Your task to perform on an android device: toggle priority inbox in the gmail app Image 0: 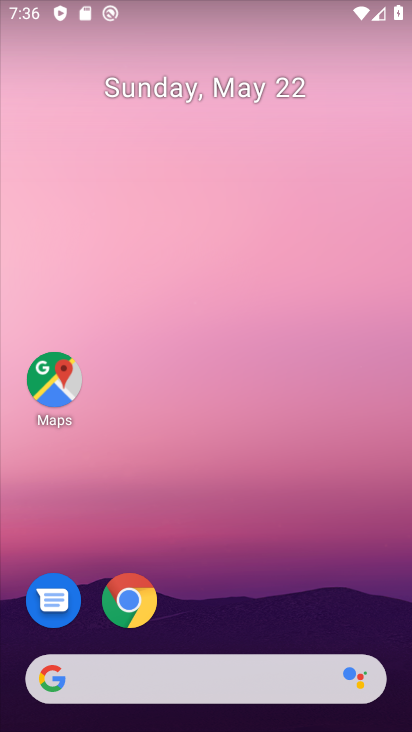
Step 0: drag from (206, 599) to (261, 317)
Your task to perform on an android device: toggle priority inbox in the gmail app Image 1: 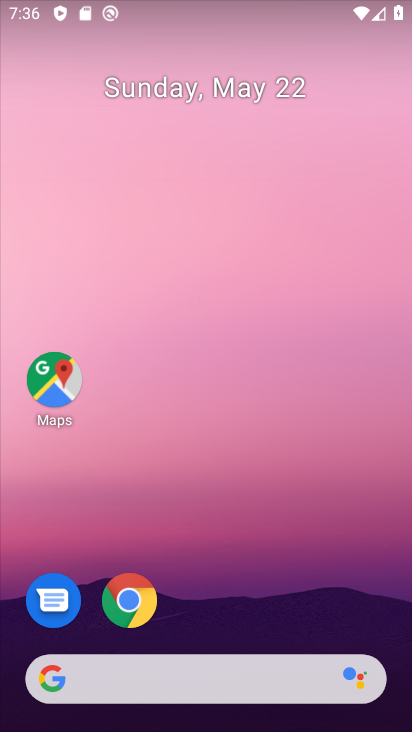
Step 1: drag from (216, 535) to (269, 237)
Your task to perform on an android device: toggle priority inbox in the gmail app Image 2: 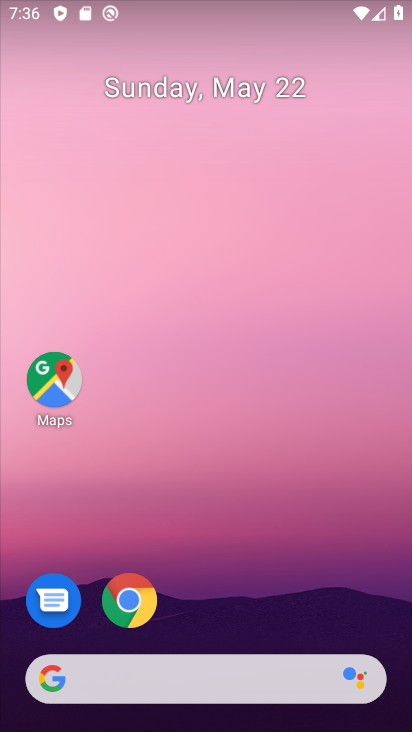
Step 2: drag from (205, 606) to (268, 192)
Your task to perform on an android device: toggle priority inbox in the gmail app Image 3: 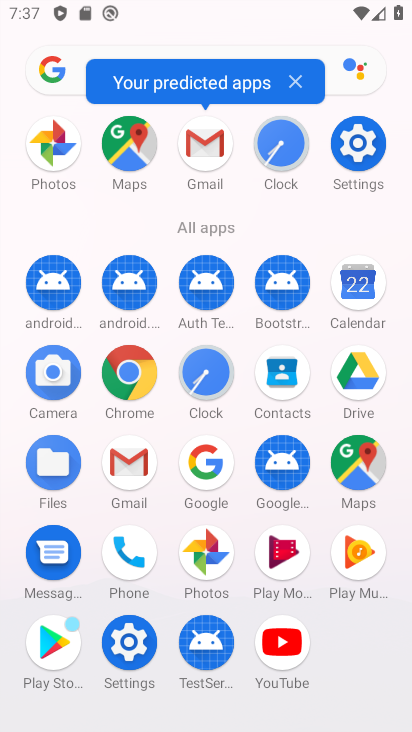
Step 3: click (216, 164)
Your task to perform on an android device: toggle priority inbox in the gmail app Image 4: 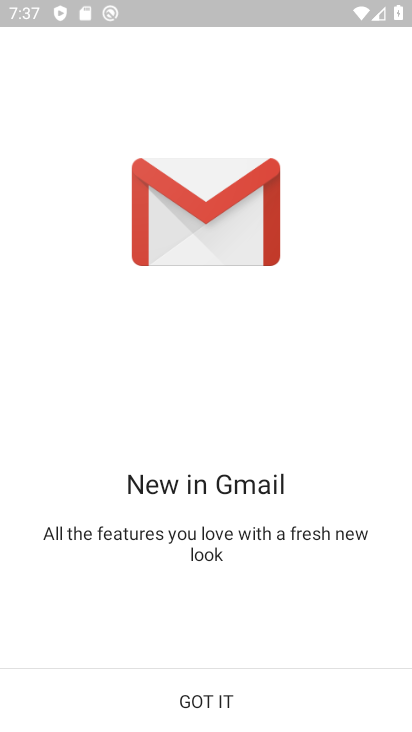
Step 4: click (201, 698)
Your task to perform on an android device: toggle priority inbox in the gmail app Image 5: 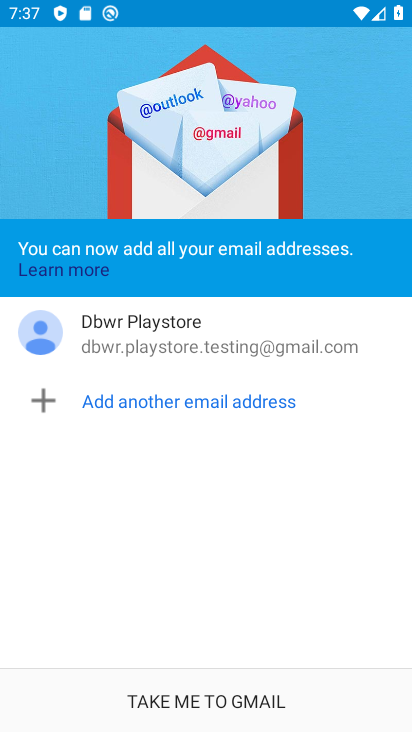
Step 5: click (220, 713)
Your task to perform on an android device: toggle priority inbox in the gmail app Image 6: 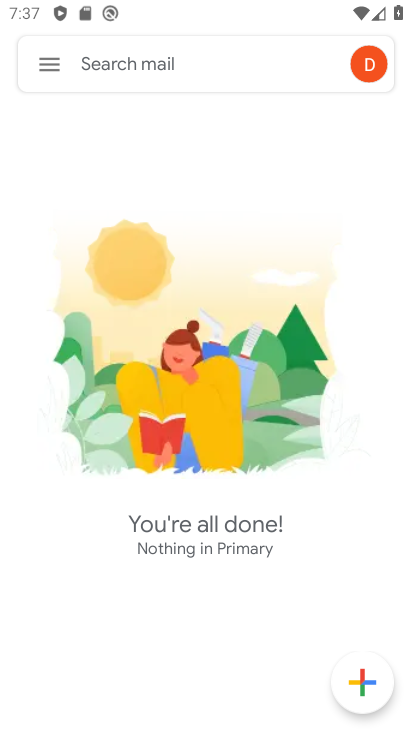
Step 6: click (42, 62)
Your task to perform on an android device: toggle priority inbox in the gmail app Image 7: 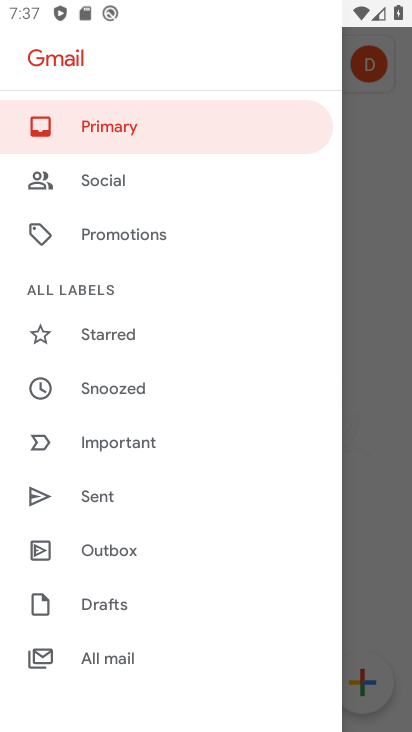
Step 7: drag from (178, 631) to (240, 188)
Your task to perform on an android device: toggle priority inbox in the gmail app Image 8: 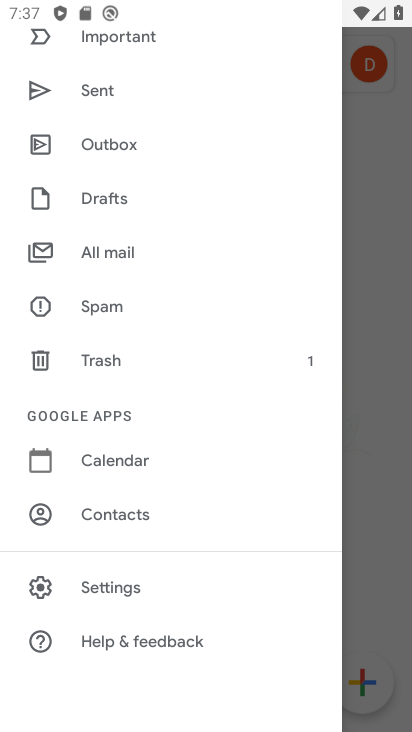
Step 8: click (115, 580)
Your task to perform on an android device: toggle priority inbox in the gmail app Image 9: 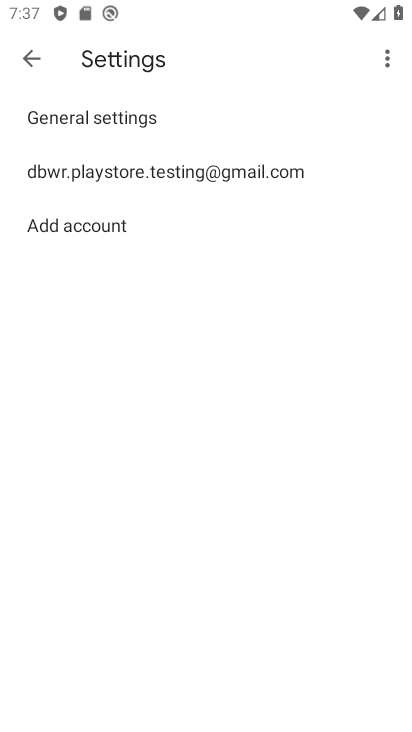
Step 9: click (204, 172)
Your task to perform on an android device: toggle priority inbox in the gmail app Image 10: 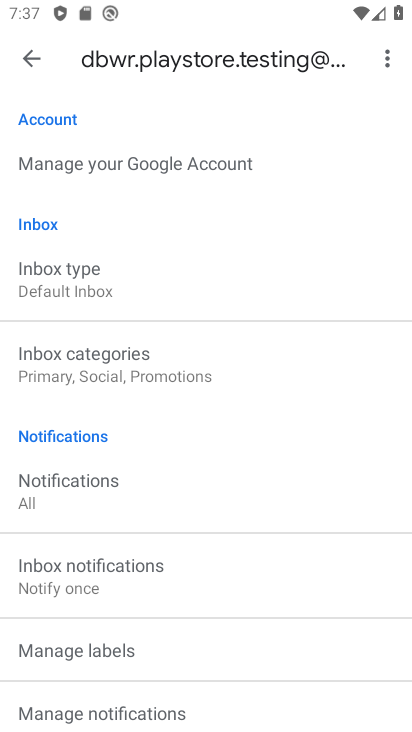
Step 10: click (89, 281)
Your task to perform on an android device: toggle priority inbox in the gmail app Image 11: 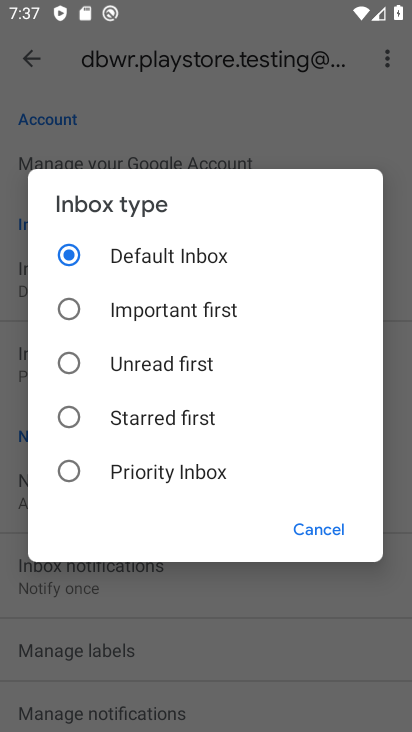
Step 11: click (120, 477)
Your task to perform on an android device: toggle priority inbox in the gmail app Image 12: 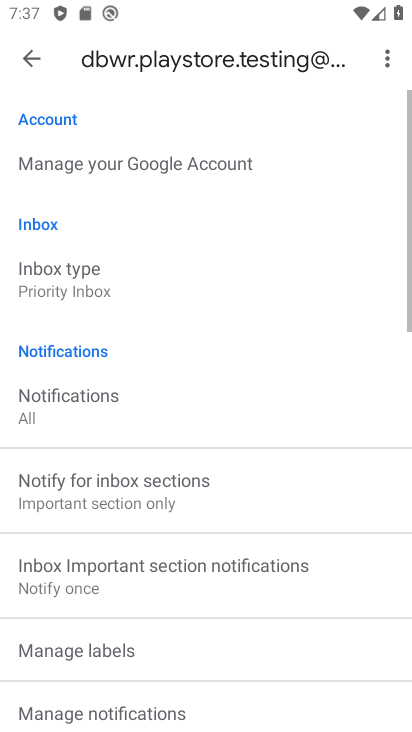
Step 12: task complete